Your task to perform on an android device: Do I have any events this weekend? Image 0: 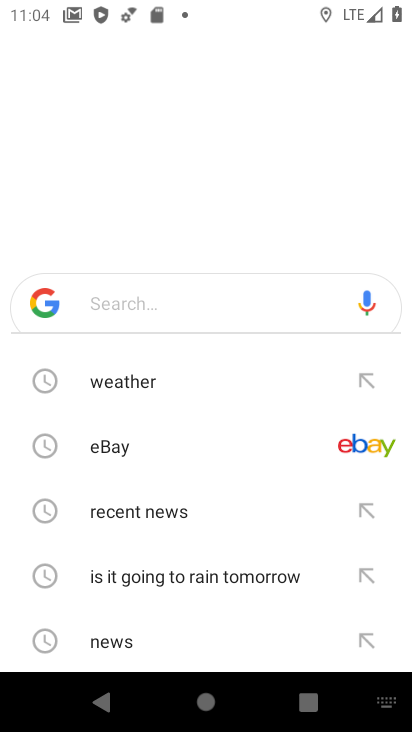
Step 0: press home button
Your task to perform on an android device: Do I have any events this weekend? Image 1: 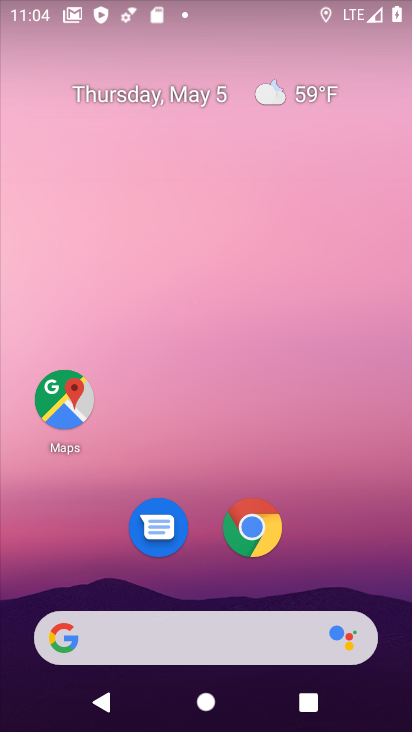
Step 1: drag from (228, 603) to (264, 6)
Your task to perform on an android device: Do I have any events this weekend? Image 2: 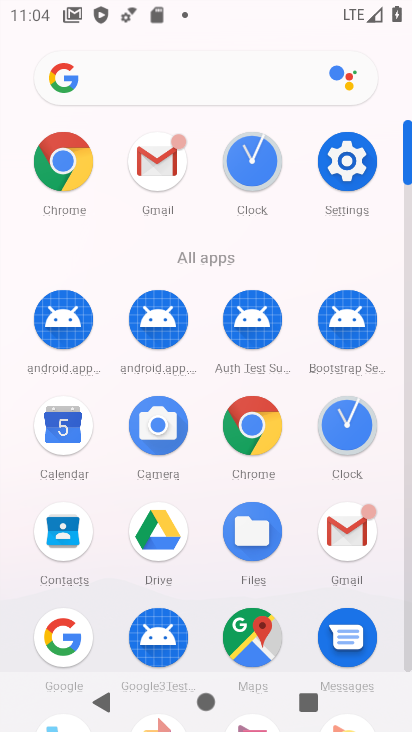
Step 2: click (60, 442)
Your task to perform on an android device: Do I have any events this weekend? Image 3: 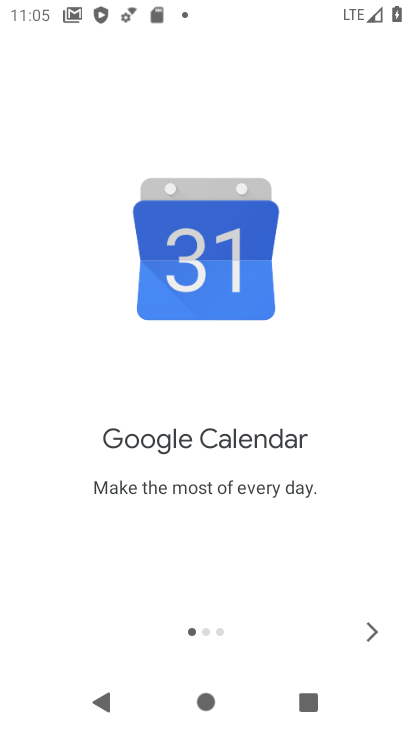
Step 3: click (378, 631)
Your task to perform on an android device: Do I have any events this weekend? Image 4: 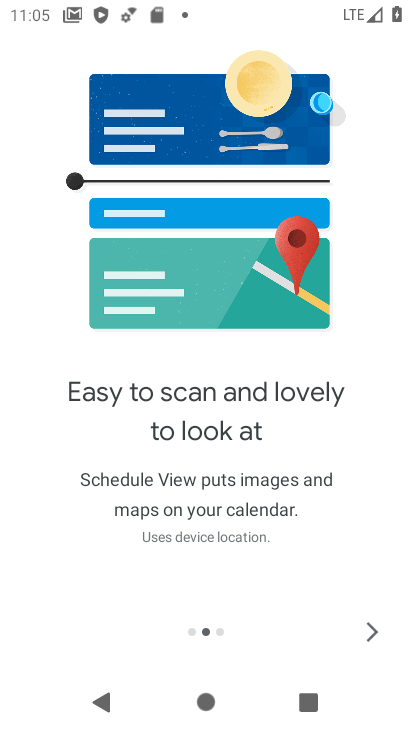
Step 4: click (373, 631)
Your task to perform on an android device: Do I have any events this weekend? Image 5: 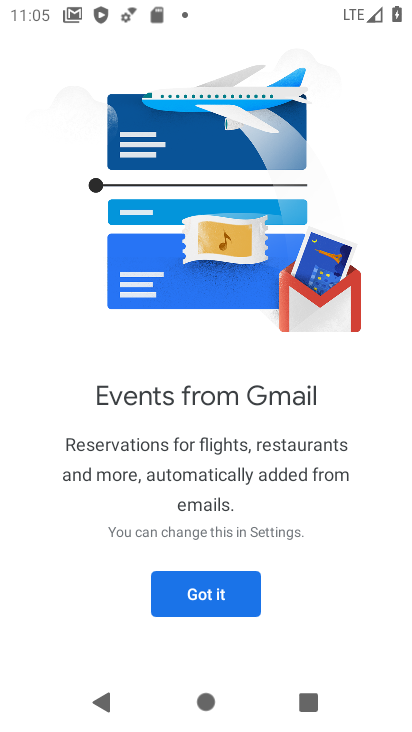
Step 5: click (172, 594)
Your task to perform on an android device: Do I have any events this weekend? Image 6: 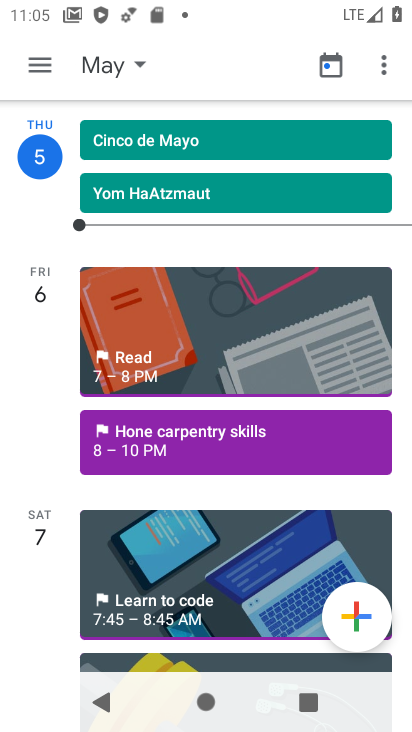
Step 6: click (27, 71)
Your task to perform on an android device: Do I have any events this weekend? Image 7: 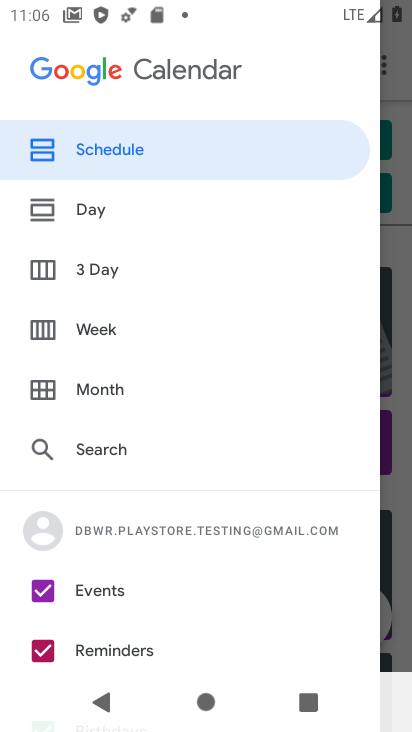
Step 7: drag from (159, 567) to (223, 243)
Your task to perform on an android device: Do I have any events this weekend? Image 8: 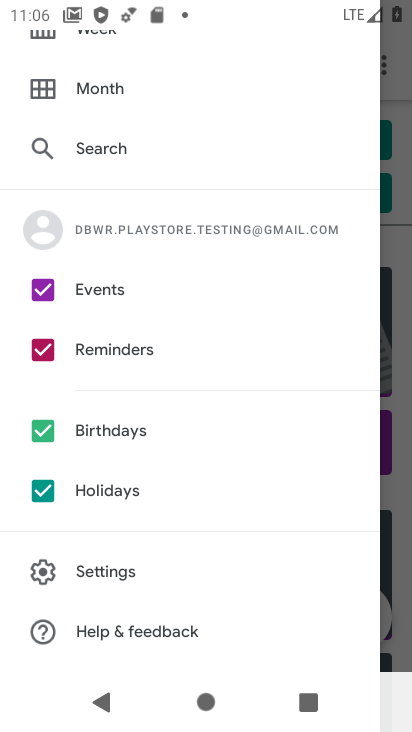
Step 8: click (109, 348)
Your task to perform on an android device: Do I have any events this weekend? Image 9: 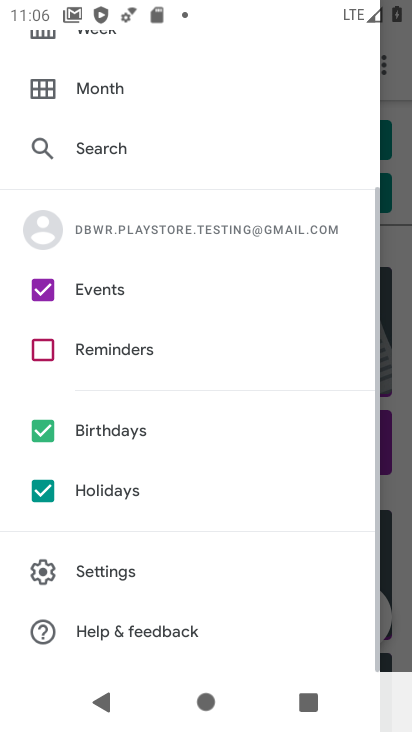
Step 9: click (74, 441)
Your task to perform on an android device: Do I have any events this weekend? Image 10: 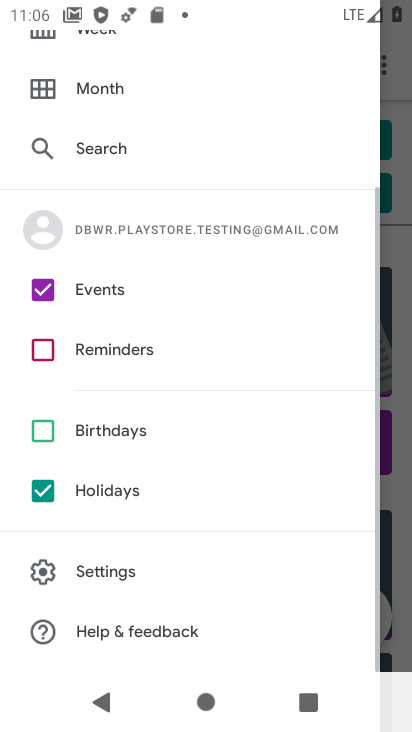
Step 10: click (59, 493)
Your task to perform on an android device: Do I have any events this weekend? Image 11: 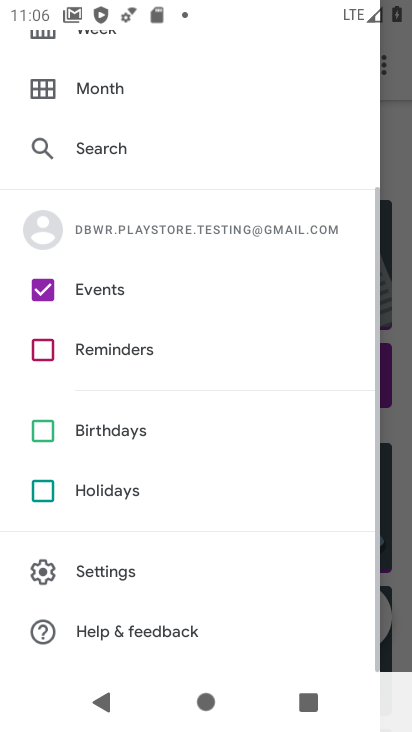
Step 11: drag from (254, 232) to (267, 626)
Your task to perform on an android device: Do I have any events this weekend? Image 12: 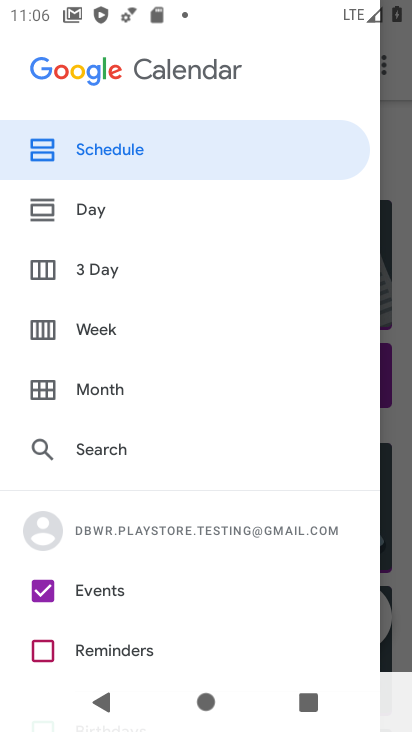
Step 12: click (104, 335)
Your task to perform on an android device: Do I have any events this weekend? Image 13: 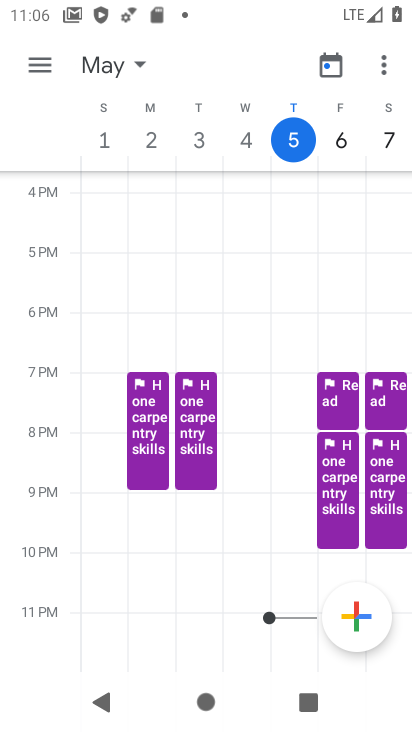
Step 13: task complete